Your task to perform on an android device: change notification settings in the gmail app Image 0: 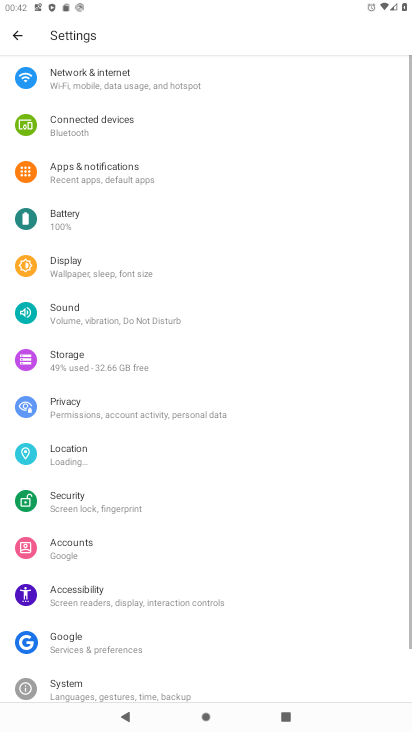
Step 0: press home button
Your task to perform on an android device: change notification settings in the gmail app Image 1: 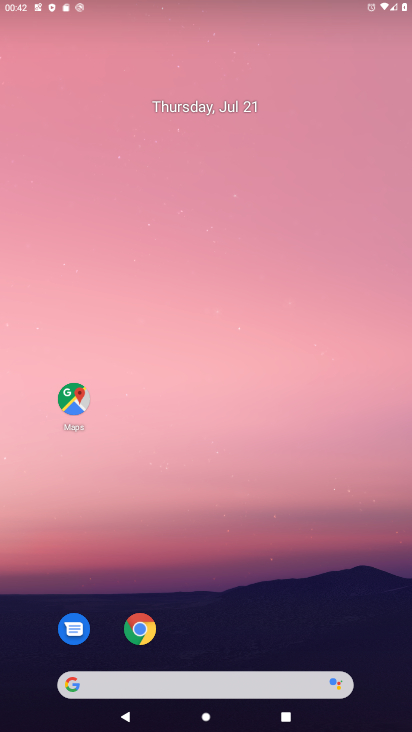
Step 1: drag from (250, 321) to (211, 100)
Your task to perform on an android device: change notification settings in the gmail app Image 2: 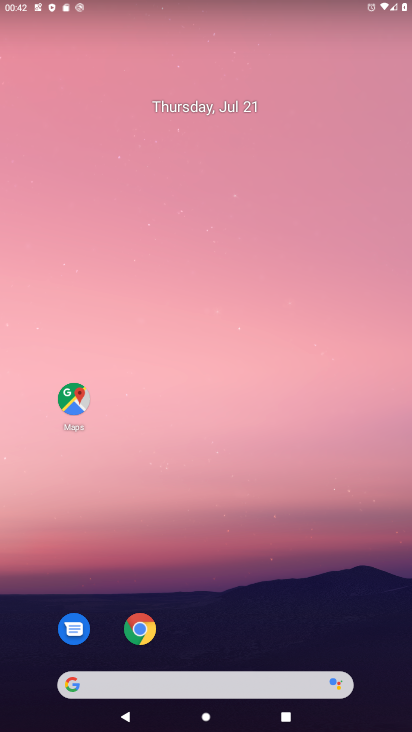
Step 2: drag from (293, 567) to (196, 38)
Your task to perform on an android device: change notification settings in the gmail app Image 3: 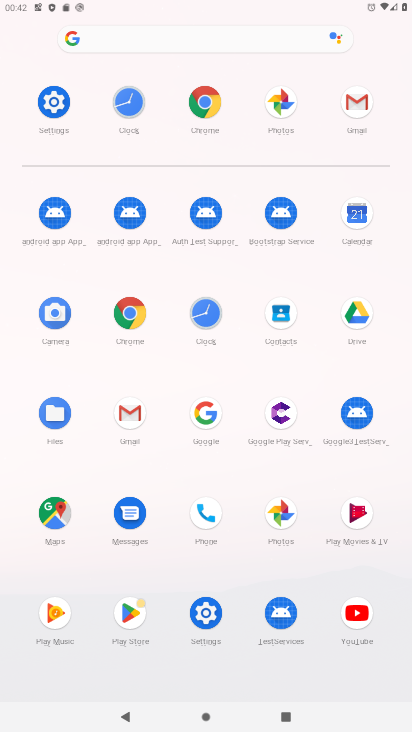
Step 3: click (52, 104)
Your task to perform on an android device: change notification settings in the gmail app Image 4: 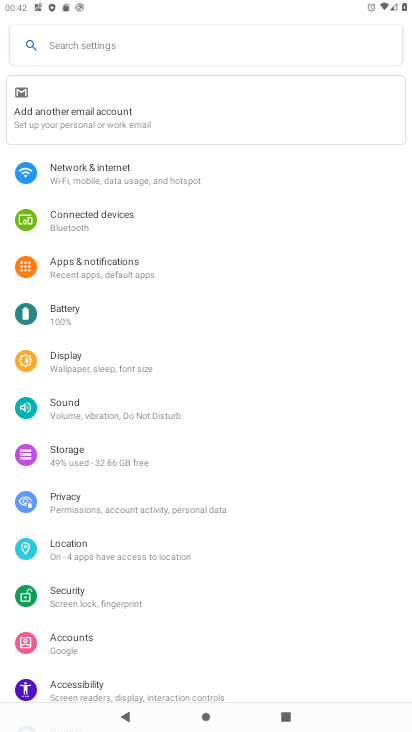
Step 4: press home button
Your task to perform on an android device: change notification settings in the gmail app Image 5: 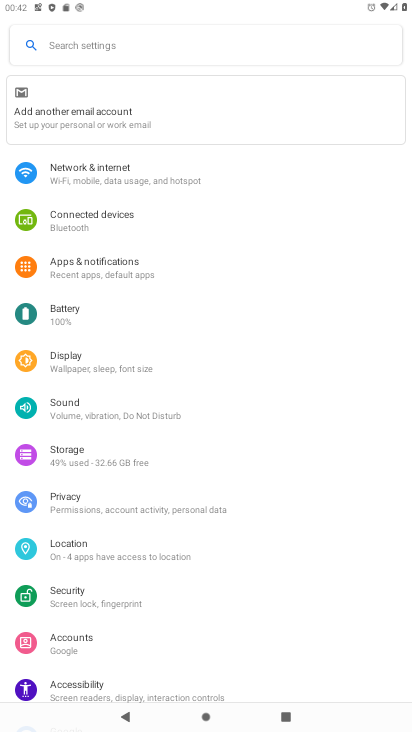
Step 5: press home button
Your task to perform on an android device: change notification settings in the gmail app Image 6: 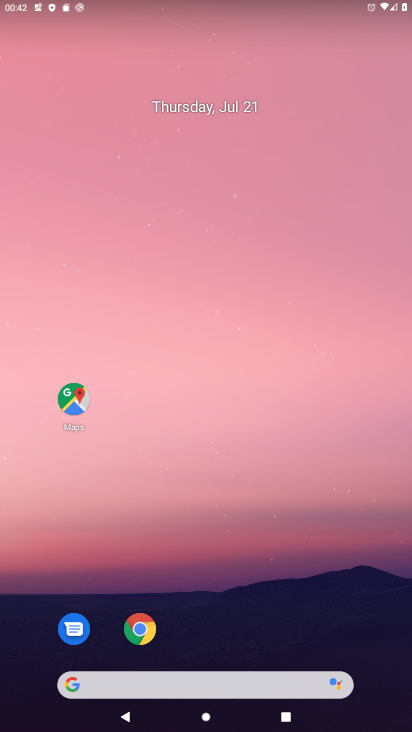
Step 6: drag from (253, 604) to (244, 158)
Your task to perform on an android device: change notification settings in the gmail app Image 7: 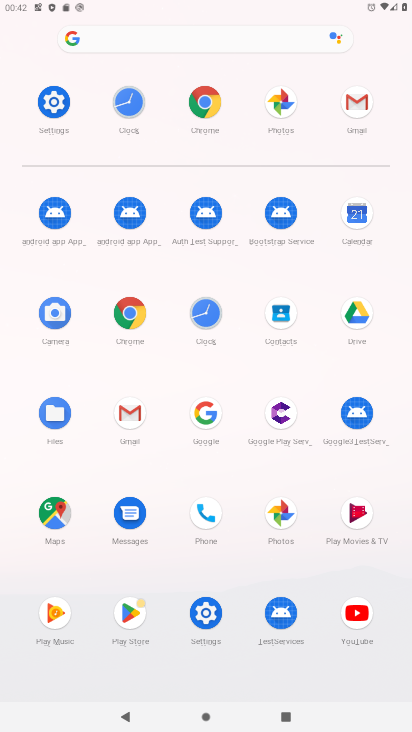
Step 7: click (351, 97)
Your task to perform on an android device: change notification settings in the gmail app Image 8: 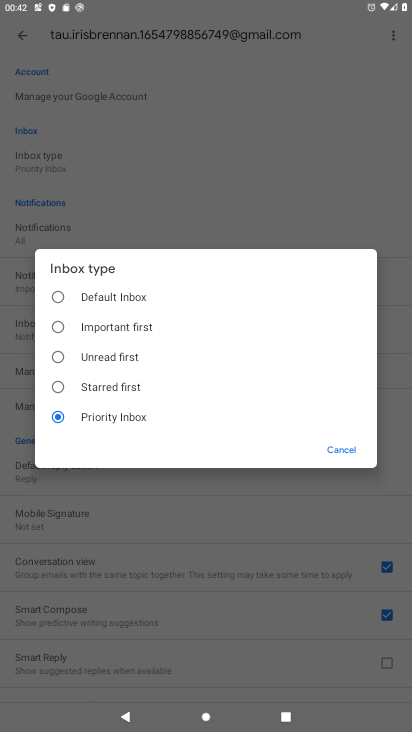
Step 8: click (333, 454)
Your task to perform on an android device: change notification settings in the gmail app Image 9: 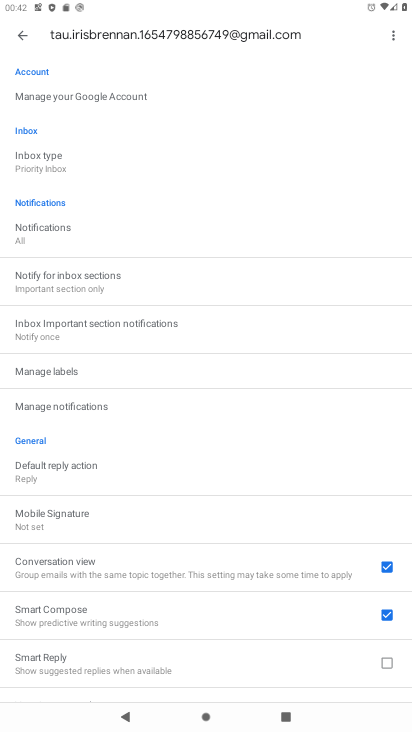
Step 9: click (70, 406)
Your task to perform on an android device: change notification settings in the gmail app Image 10: 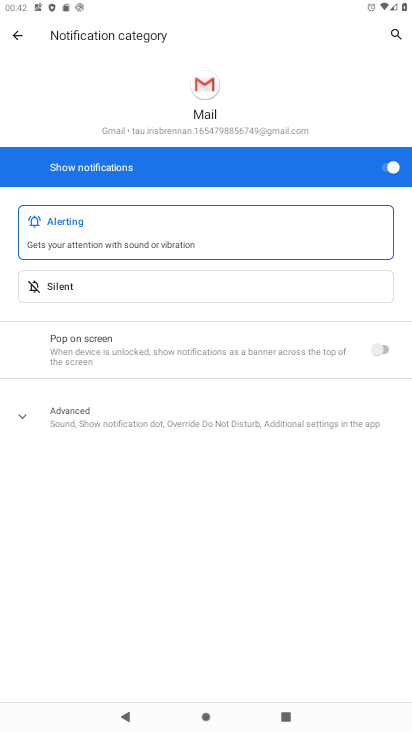
Step 10: click (386, 164)
Your task to perform on an android device: change notification settings in the gmail app Image 11: 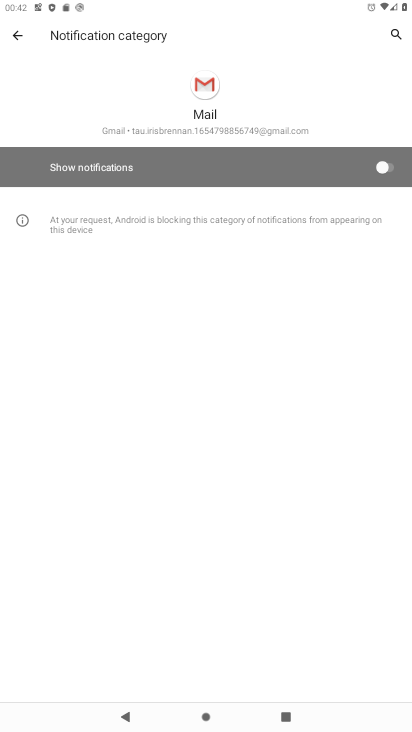
Step 11: task complete